Your task to perform on an android device: toggle priority inbox in the gmail app Image 0: 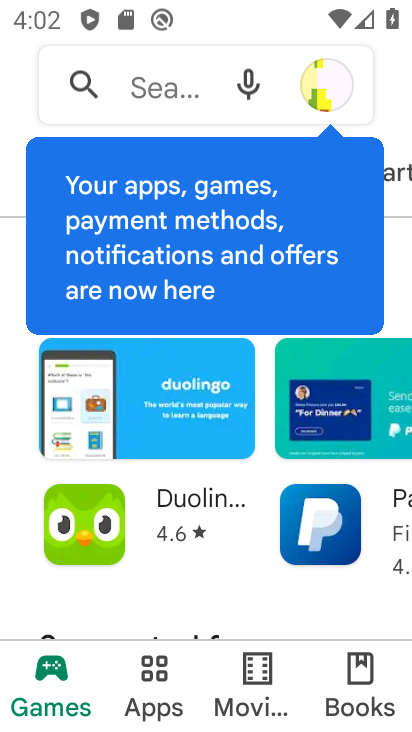
Step 0: press back button
Your task to perform on an android device: toggle priority inbox in the gmail app Image 1: 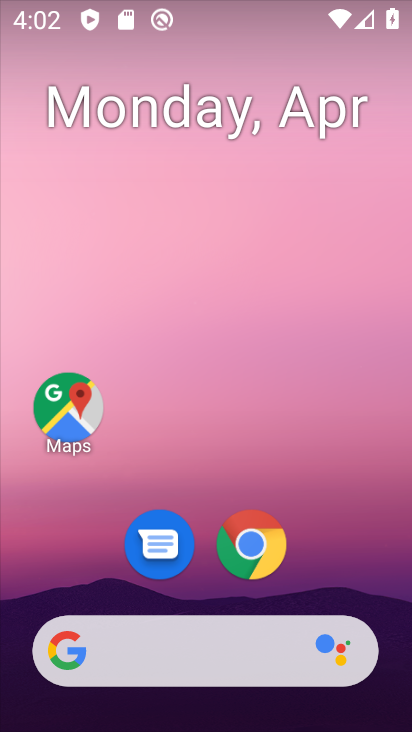
Step 1: drag from (187, 612) to (270, 119)
Your task to perform on an android device: toggle priority inbox in the gmail app Image 2: 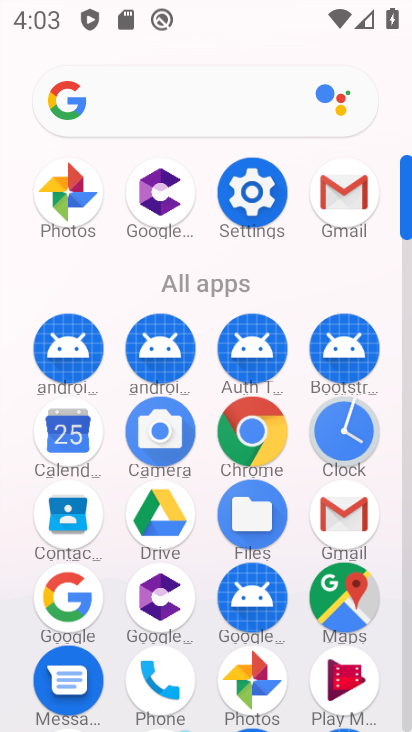
Step 2: click (338, 519)
Your task to perform on an android device: toggle priority inbox in the gmail app Image 3: 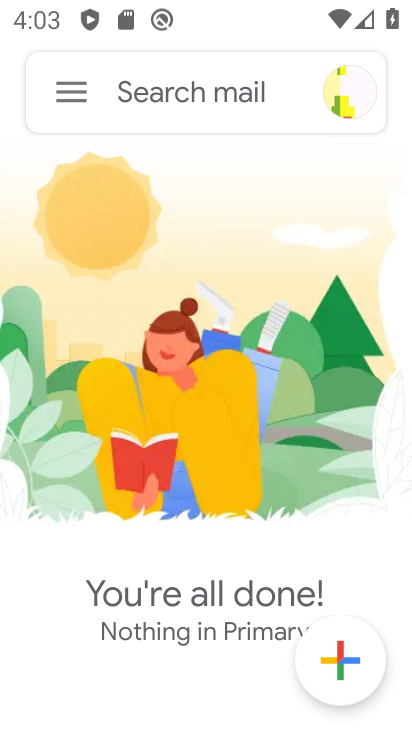
Step 3: click (60, 95)
Your task to perform on an android device: toggle priority inbox in the gmail app Image 4: 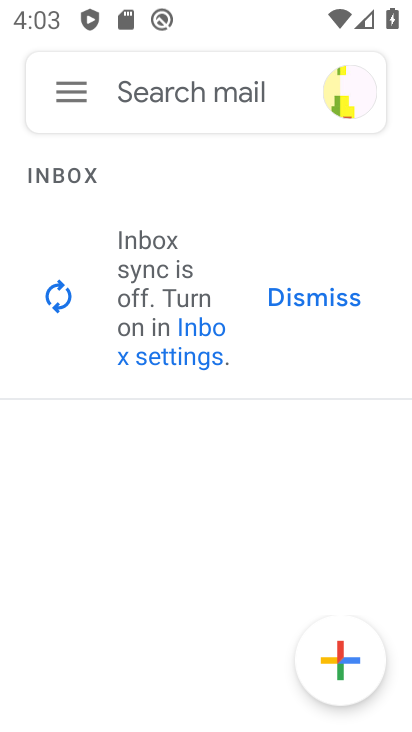
Step 4: click (87, 96)
Your task to perform on an android device: toggle priority inbox in the gmail app Image 5: 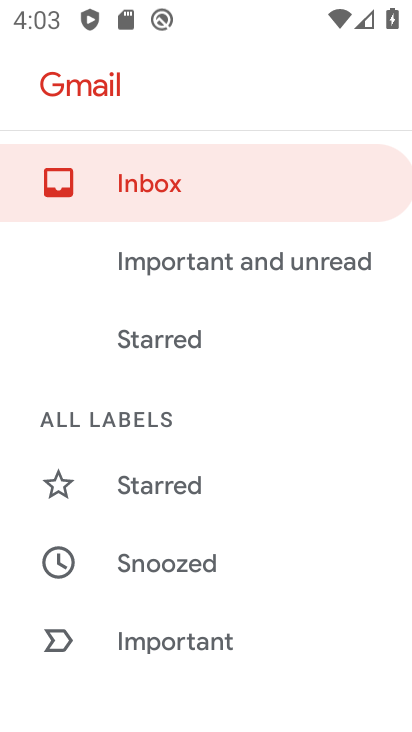
Step 5: drag from (200, 665) to (336, 100)
Your task to perform on an android device: toggle priority inbox in the gmail app Image 6: 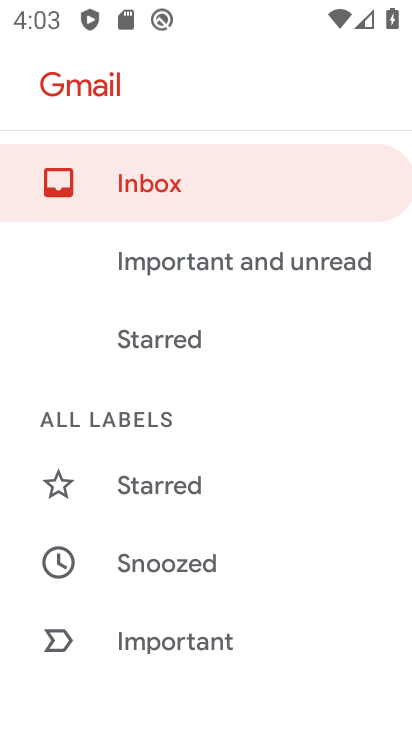
Step 6: drag from (214, 635) to (343, 133)
Your task to perform on an android device: toggle priority inbox in the gmail app Image 7: 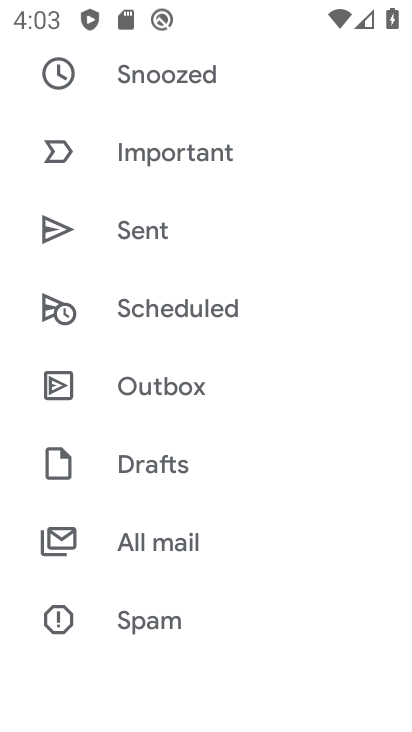
Step 7: drag from (191, 632) to (298, 172)
Your task to perform on an android device: toggle priority inbox in the gmail app Image 8: 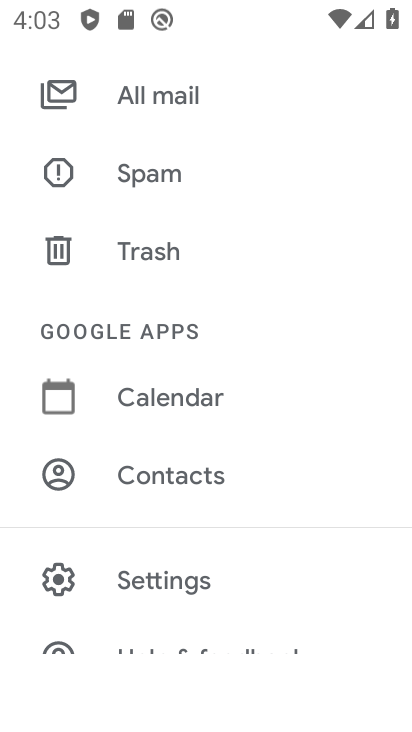
Step 8: click (235, 581)
Your task to perform on an android device: toggle priority inbox in the gmail app Image 9: 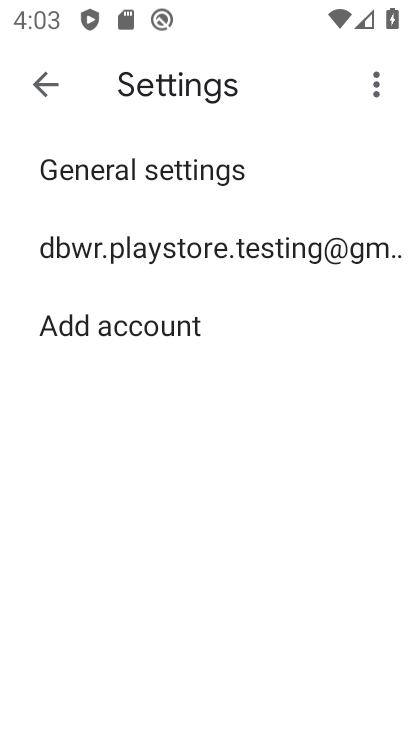
Step 9: click (281, 245)
Your task to perform on an android device: toggle priority inbox in the gmail app Image 10: 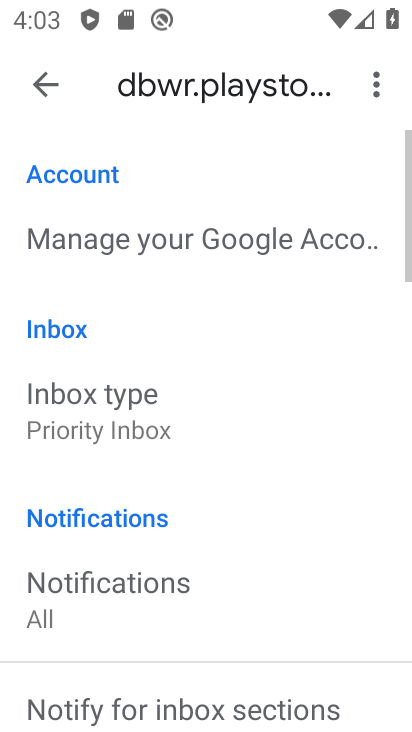
Step 10: click (238, 404)
Your task to perform on an android device: toggle priority inbox in the gmail app Image 11: 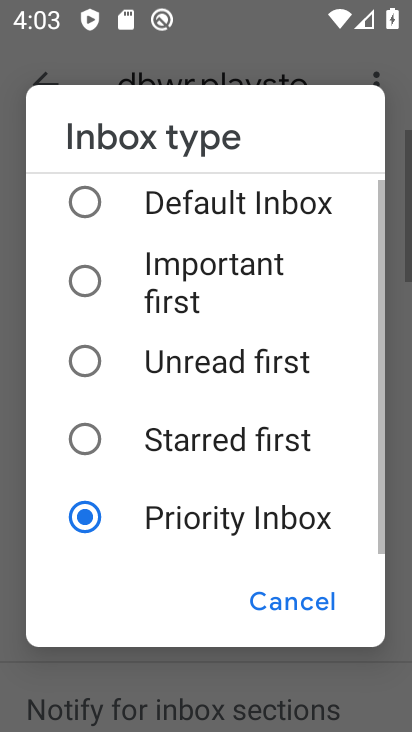
Step 11: click (237, 364)
Your task to perform on an android device: toggle priority inbox in the gmail app Image 12: 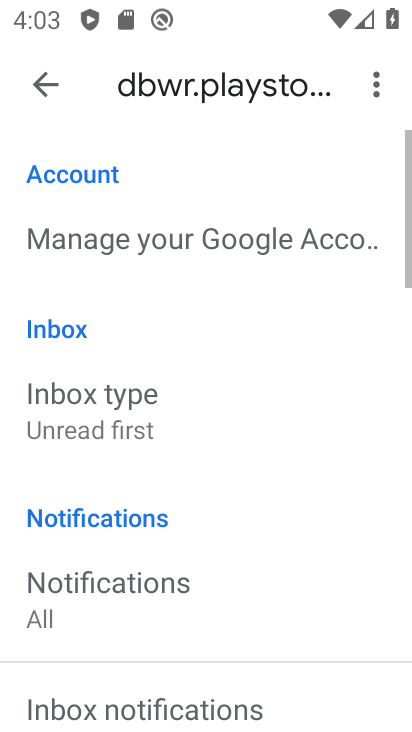
Step 12: task complete